Your task to perform on an android device: Show me recent news Image 0: 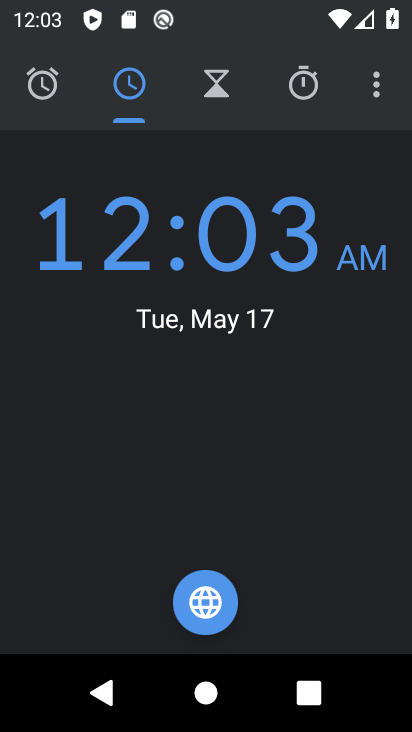
Step 0: press home button
Your task to perform on an android device: Show me recent news Image 1: 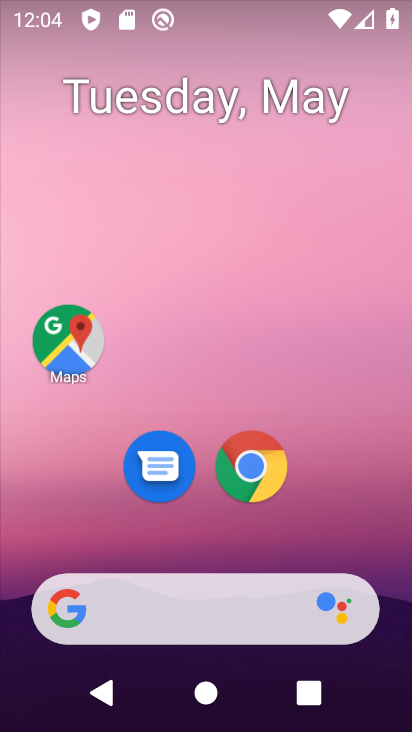
Step 1: drag from (398, 640) to (404, 496)
Your task to perform on an android device: Show me recent news Image 2: 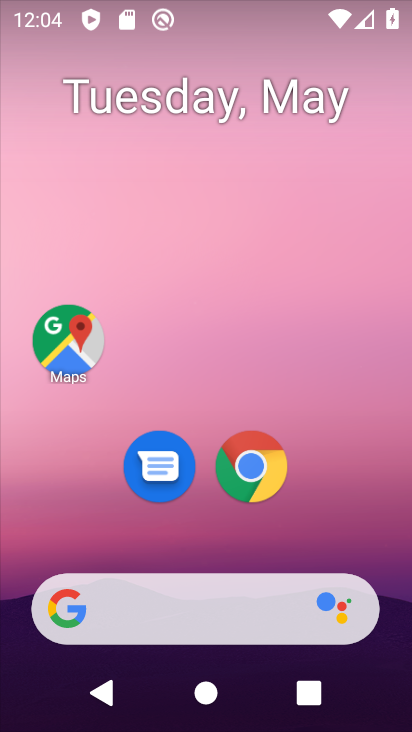
Step 2: drag from (381, 688) to (386, 221)
Your task to perform on an android device: Show me recent news Image 3: 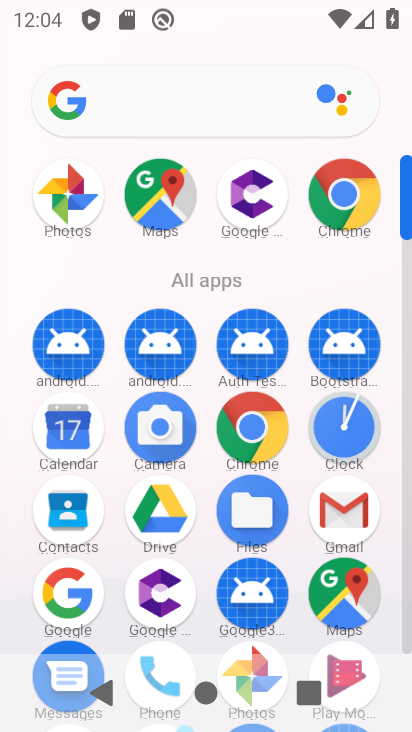
Step 3: click (378, 368)
Your task to perform on an android device: Show me recent news Image 4: 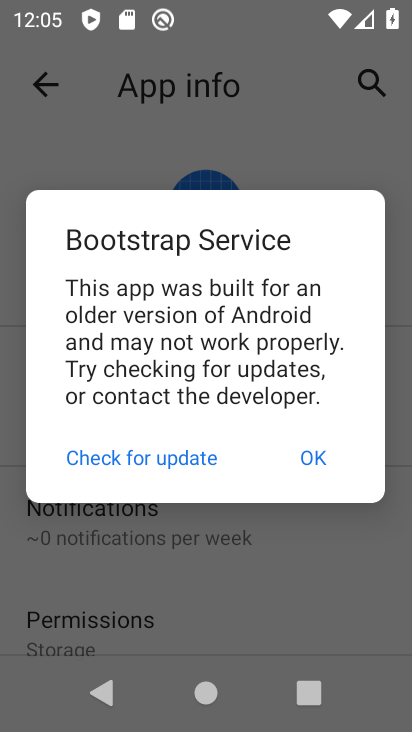
Step 4: click (319, 461)
Your task to perform on an android device: Show me recent news Image 5: 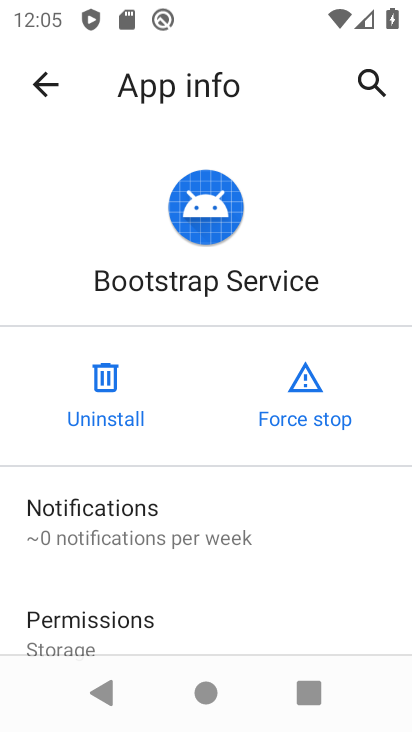
Step 5: press back button
Your task to perform on an android device: Show me recent news Image 6: 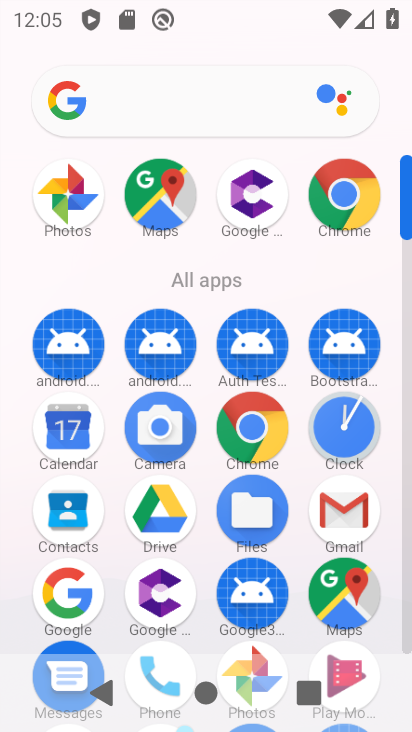
Step 6: click (53, 593)
Your task to perform on an android device: Show me recent news Image 7: 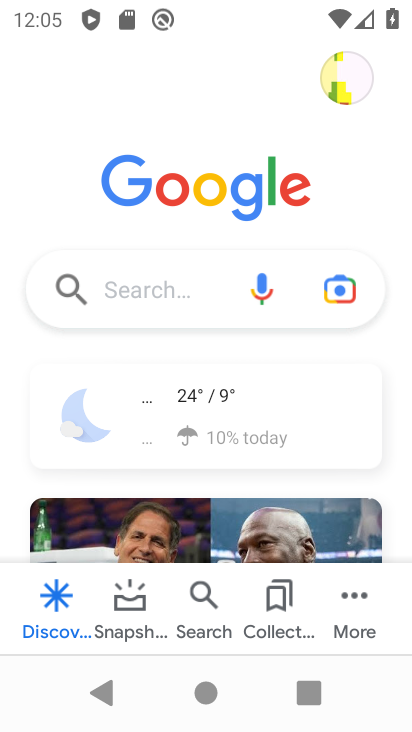
Step 7: task complete